Your task to perform on an android device: Open display settings Image 0: 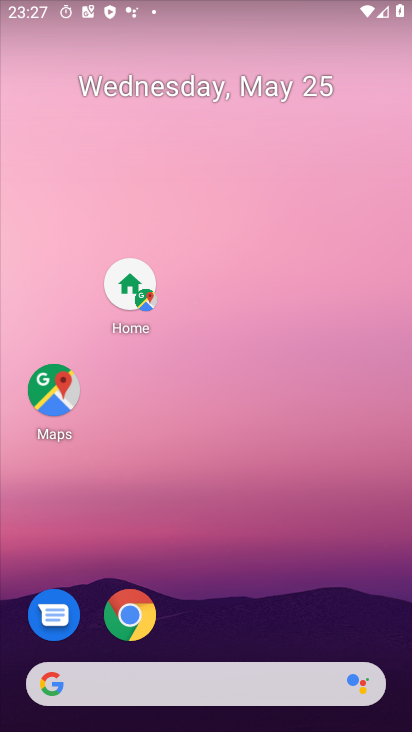
Step 0: press home button
Your task to perform on an android device: Open display settings Image 1: 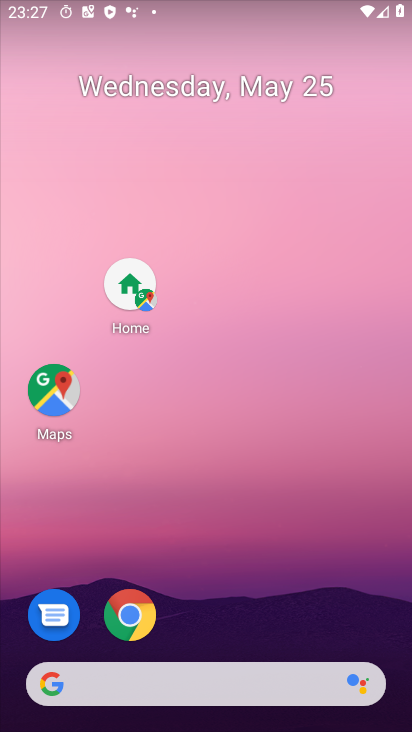
Step 1: press home button
Your task to perform on an android device: Open display settings Image 2: 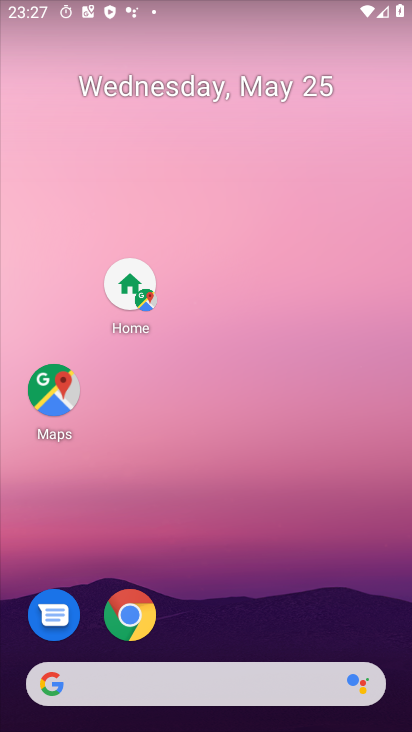
Step 2: drag from (269, 615) to (267, 193)
Your task to perform on an android device: Open display settings Image 3: 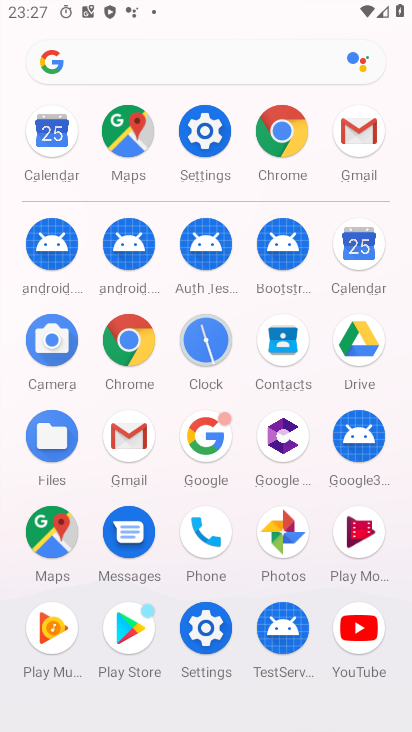
Step 3: click (197, 146)
Your task to perform on an android device: Open display settings Image 4: 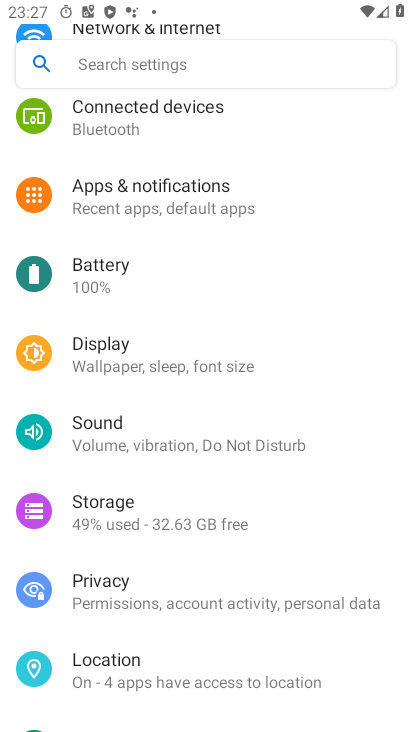
Step 4: click (100, 364)
Your task to perform on an android device: Open display settings Image 5: 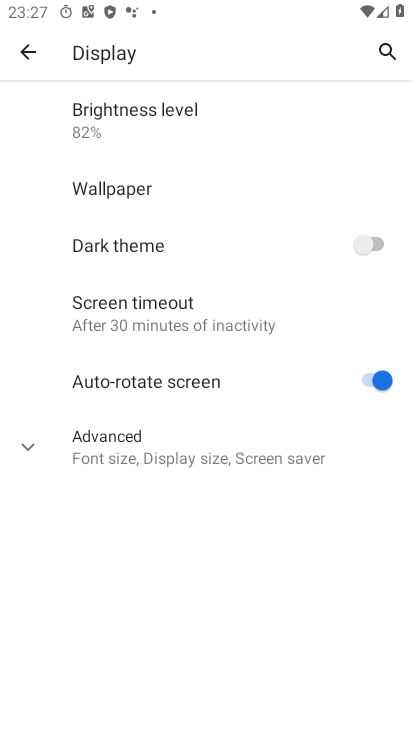
Step 5: task complete